Your task to perform on an android device: Search for sushi restaurants on Maps Image 0: 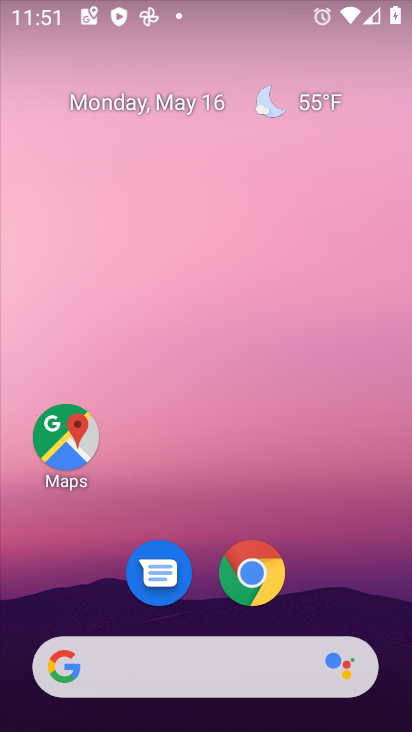
Step 0: click (90, 454)
Your task to perform on an android device: Search for sushi restaurants on Maps Image 1: 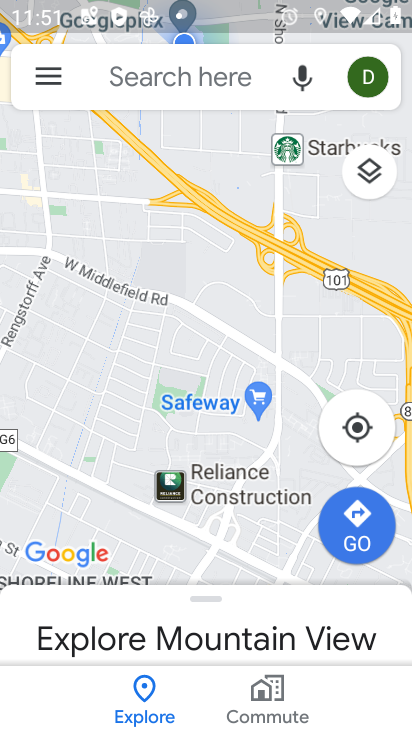
Step 1: click (202, 92)
Your task to perform on an android device: Search for sushi restaurants on Maps Image 2: 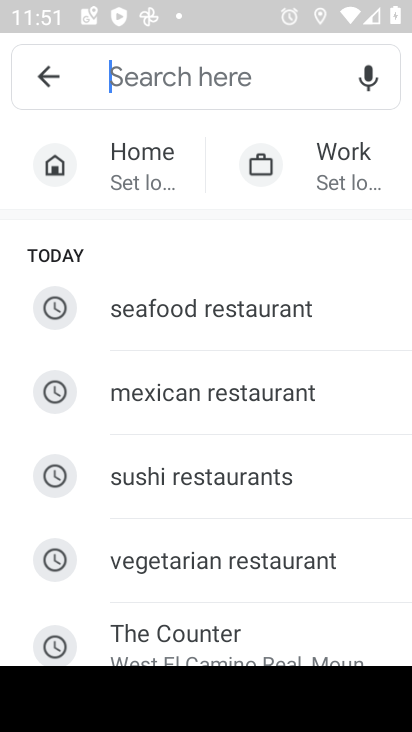
Step 2: click (222, 496)
Your task to perform on an android device: Search for sushi restaurants on Maps Image 3: 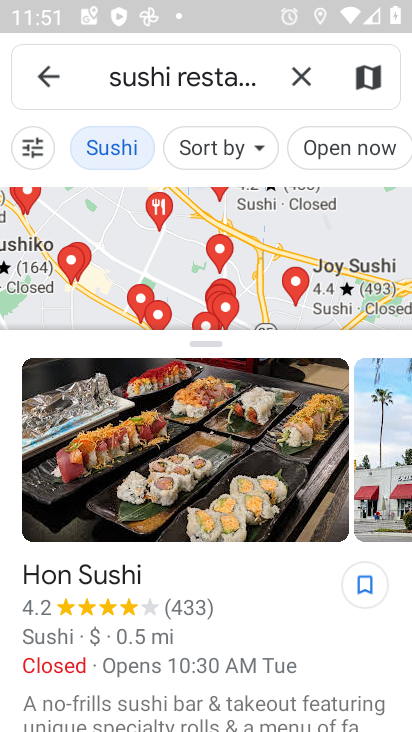
Step 3: task complete